Your task to perform on an android device: allow cookies in the chrome app Image 0: 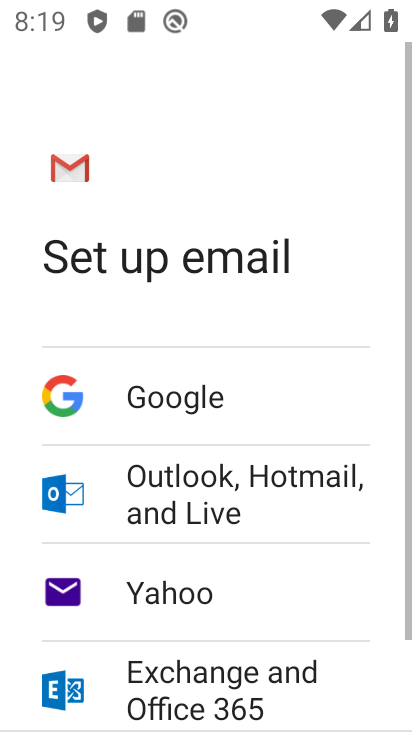
Step 0: press home button
Your task to perform on an android device: allow cookies in the chrome app Image 1: 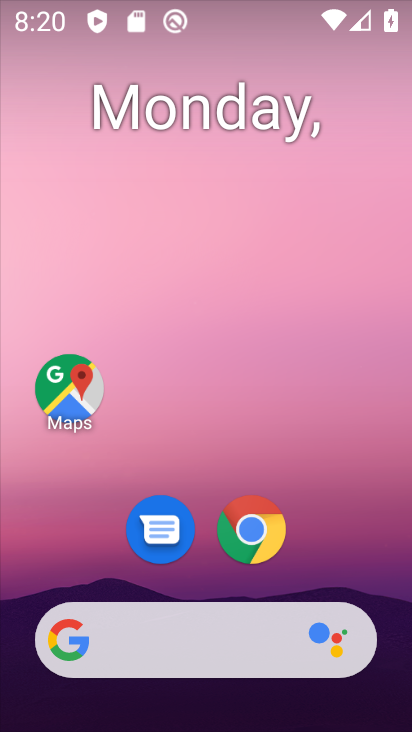
Step 1: click (241, 545)
Your task to perform on an android device: allow cookies in the chrome app Image 2: 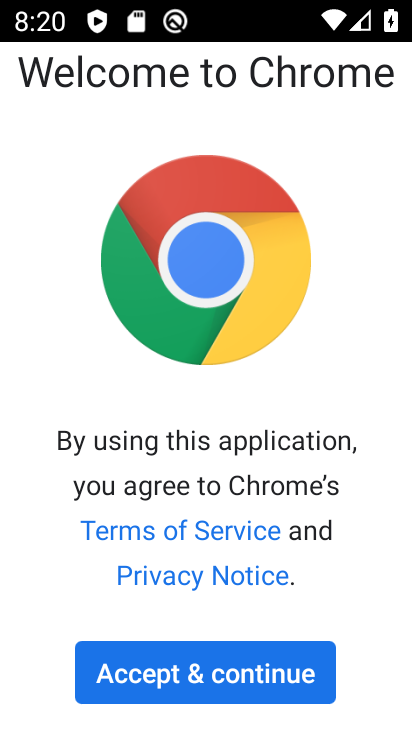
Step 2: click (211, 684)
Your task to perform on an android device: allow cookies in the chrome app Image 3: 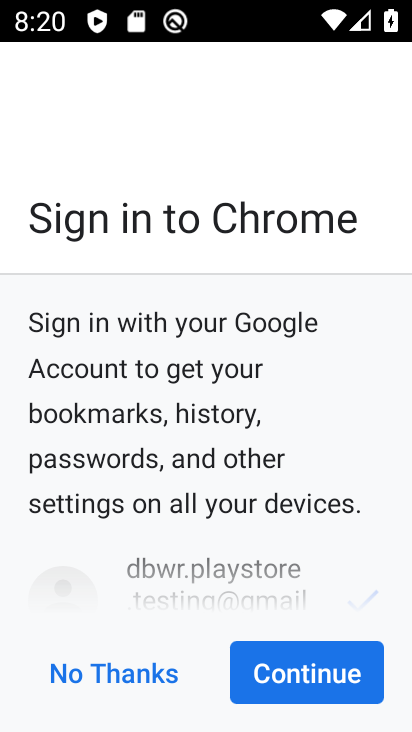
Step 3: click (77, 679)
Your task to perform on an android device: allow cookies in the chrome app Image 4: 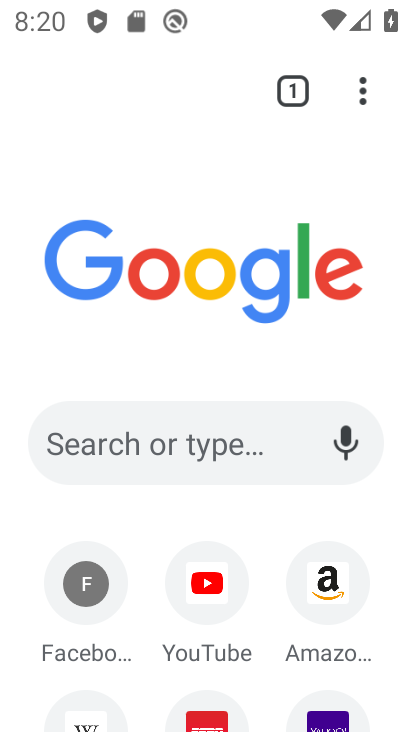
Step 4: click (360, 93)
Your task to perform on an android device: allow cookies in the chrome app Image 5: 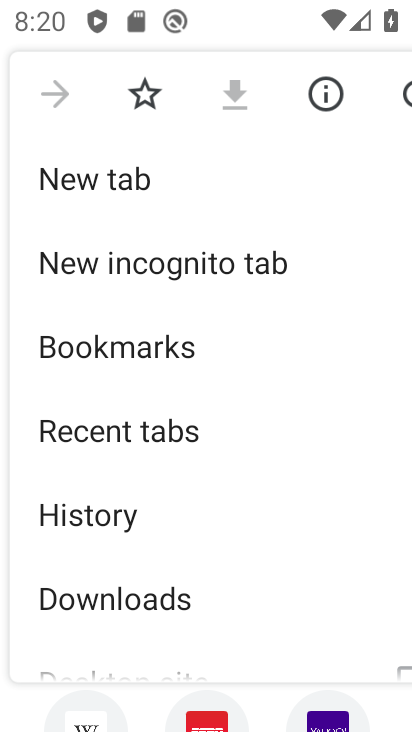
Step 5: drag from (121, 614) to (252, 176)
Your task to perform on an android device: allow cookies in the chrome app Image 6: 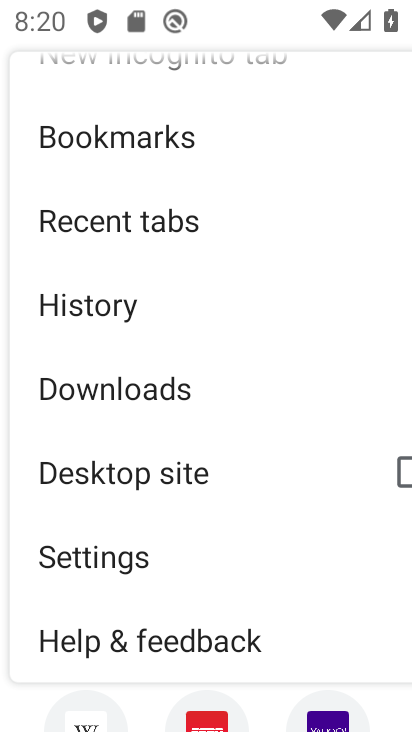
Step 6: click (99, 555)
Your task to perform on an android device: allow cookies in the chrome app Image 7: 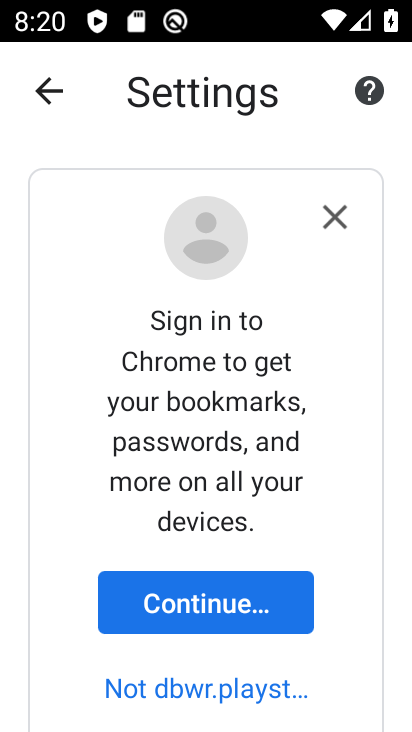
Step 7: click (334, 218)
Your task to perform on an android device: allow cookies in the chrome app Image 8: 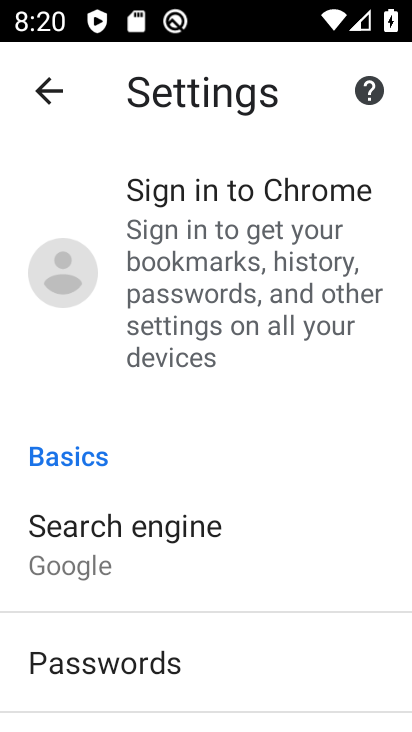
Step 8: drag from (205, 703) to (279, 283)
Your task to perform on an android device: allow cookies in the chrome app Image 9: 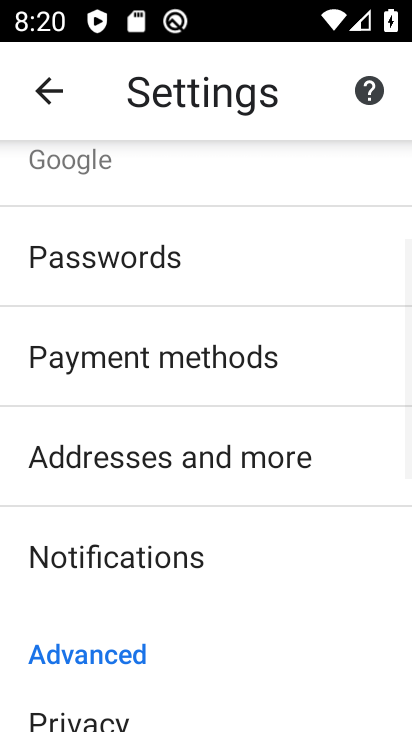
Step 9: drag from (271, 201) to (182, 559)
Your task to perform on an android device: allow cookies in the chrome app Image 10: 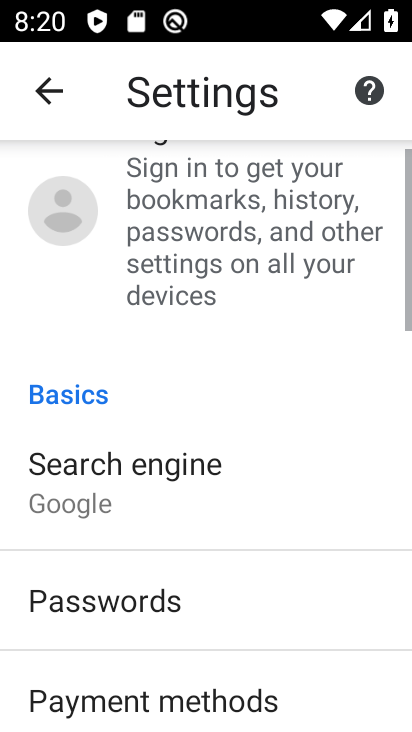
Step 10: drag from (142, 657) to (260, 253)
Your task to perform on an android device: allow cookies in the chrome app Image 11: 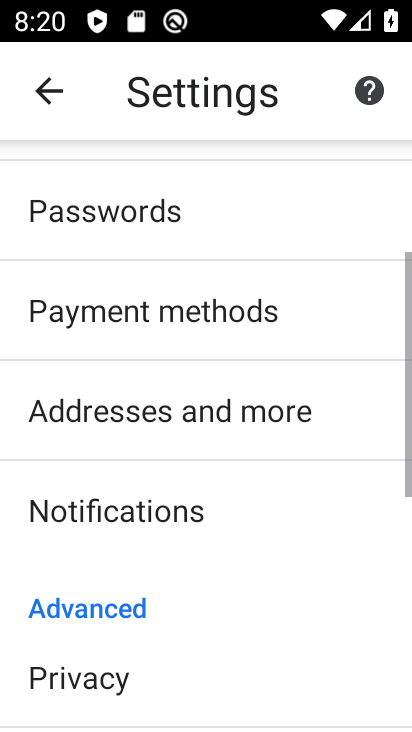
Step 11: click (105, 672)
Your task to perform on an android device: allow cookies in the chrome app Image 12: 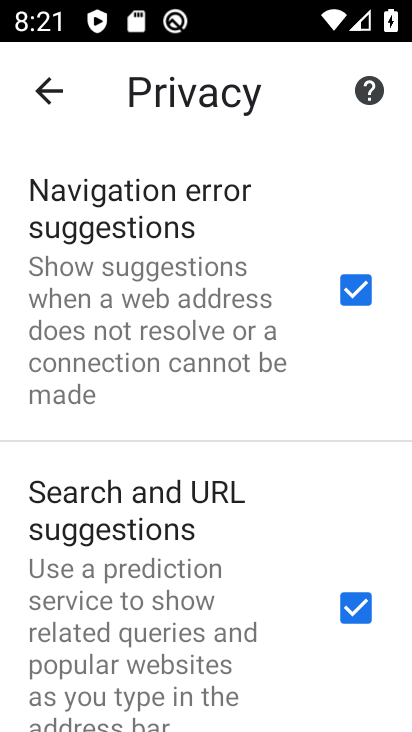
Step 12: press back button
Your task to perform on an android device: allow cookies in the chrome app Image 13: 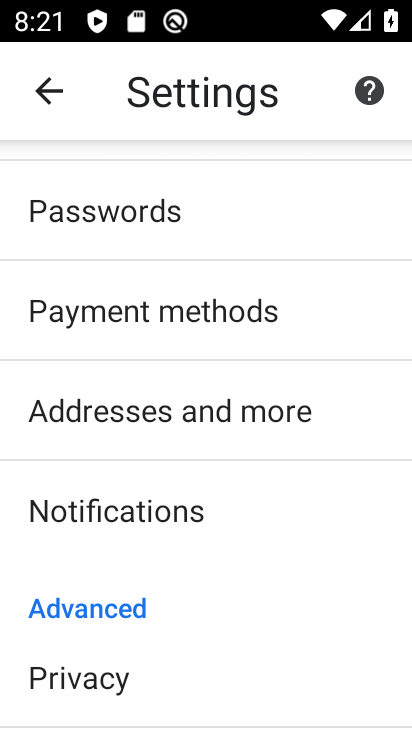
Step 13: drag from (91, 671) to (211, 287)
Your task to perform on an android device: allow cookies in the chrome app Image 14: 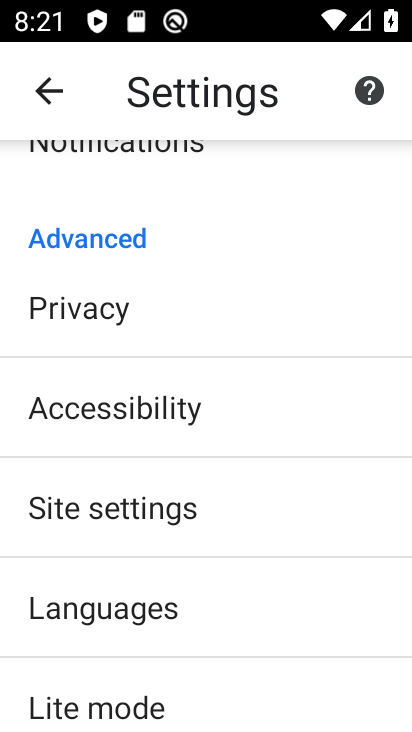
Step 14: click (159, 487)
Your task to perform on an android device: allow cookies in the chrome app Image 15: 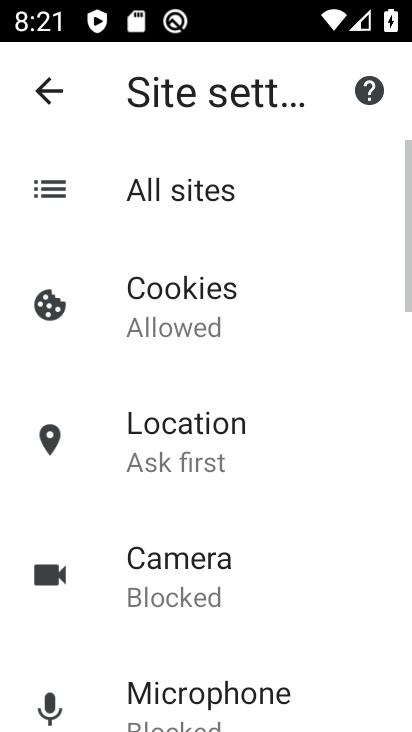
Step 15: click (168, 295)
Your task to perform on an android device: allow cookies in the chrome app Image 16: 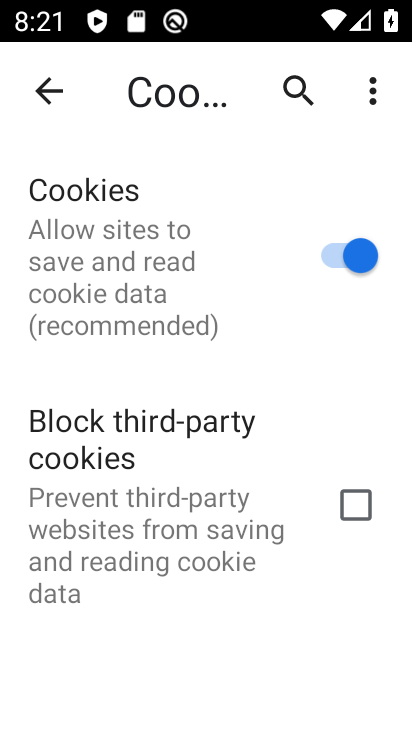
Step 16: task complete